Your task to perform on an android device: Open settings on Google Maps Image 0: 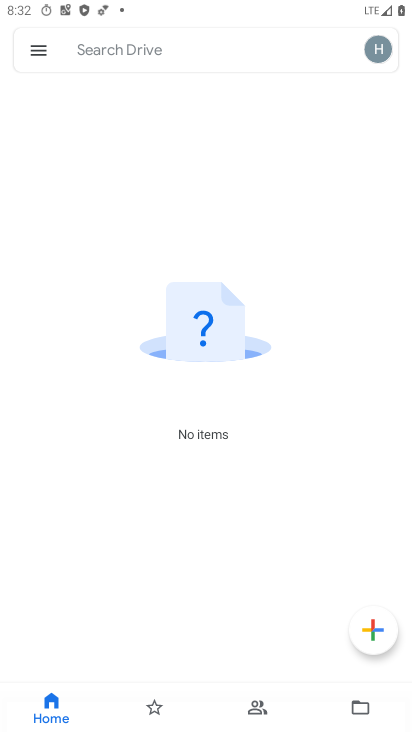
Step 0: press home button
Your task to perform on an android device: Open settings on Google Maps Image 1: 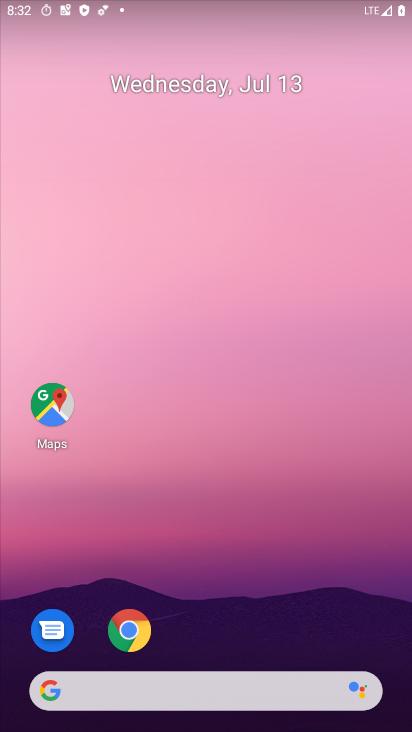
Step 1: drag from (346, 625) to (320, 134)
Your task to perform on an android device: Open settings on Google Maps Image 2: 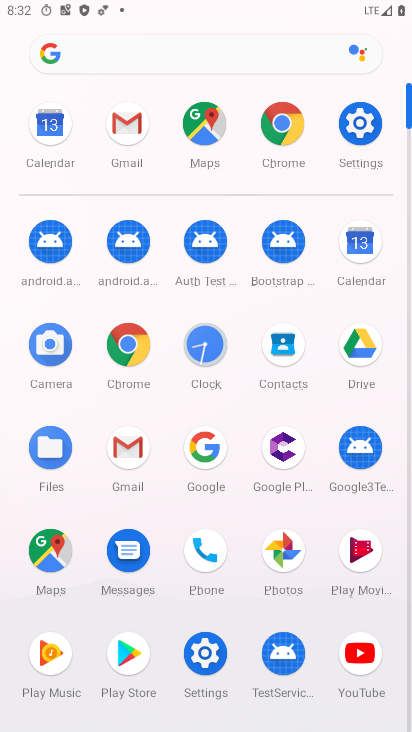
Step 2: click (49, 550)
Your task to perform on an android device: Open settings on Google Maps Image 3: 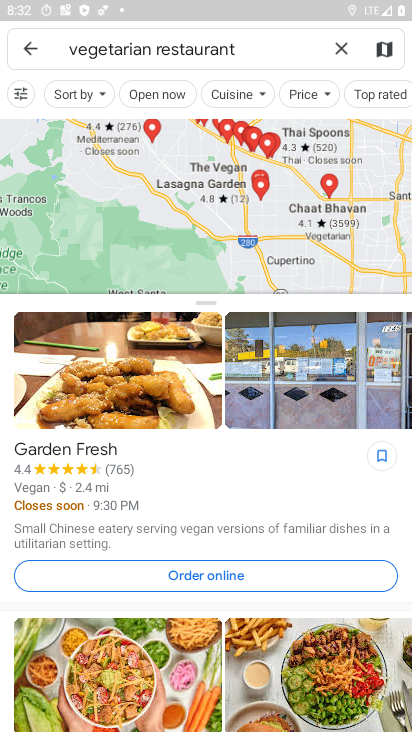
Step 3: press back button
Your task to perform on an android device: Open settings on Google Maps Image 4: 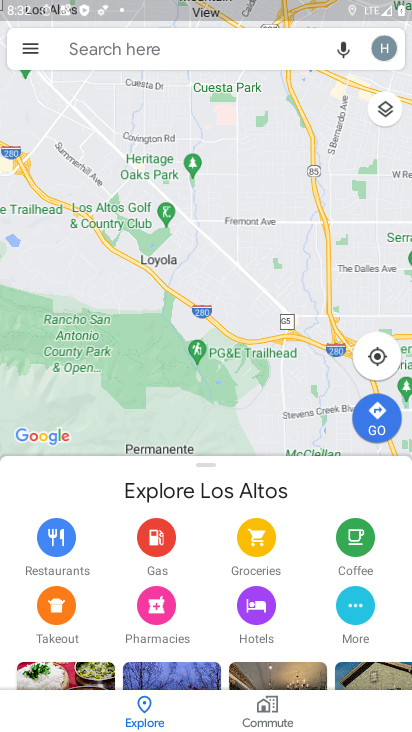
Step 4: click (31, 48)
Your task to perform on an android device: Open settings on Google Maps Image 5: 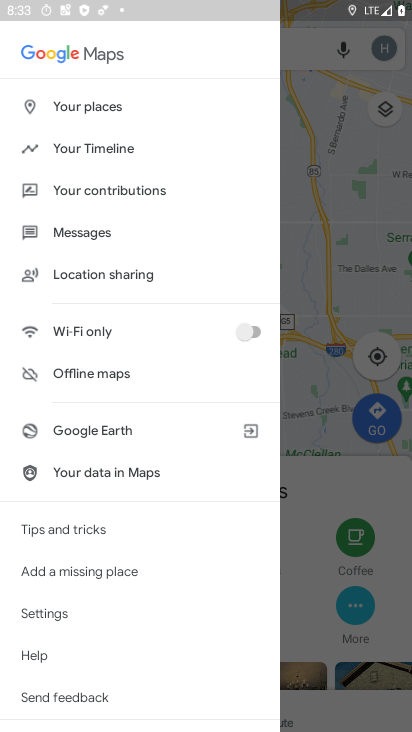
Step 5: click (157, 622)
Your task to perform on an android device: Open settings on Google Maps Image 6: 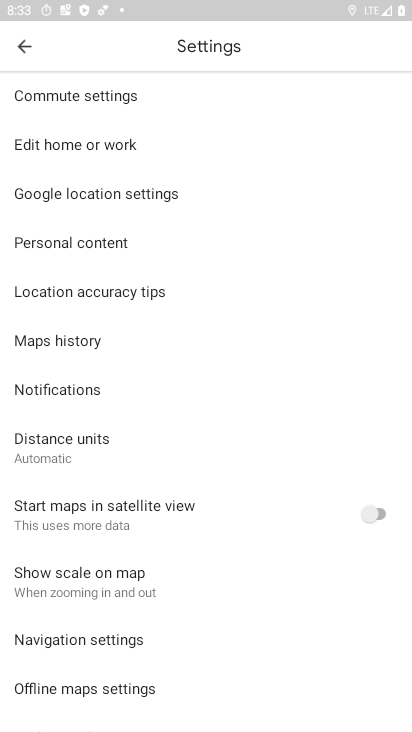
Step 6: task complete